Your task to perform on an android device: allow notifications from all sites in the chrome app Image 0: 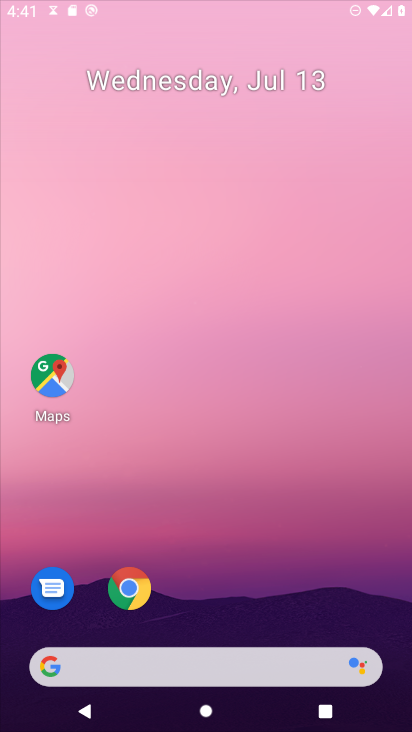
Step 0: click (182, 202)
Your task to perform on an android device: allow notifications from all sites in the chrome app Image 1: 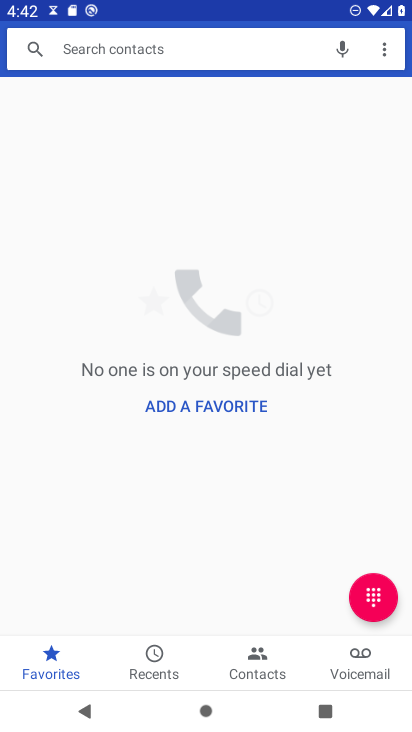
Step 1: press back button
Your task to perform on an android device: allow notifications from all sites in the chrome app Image 2: 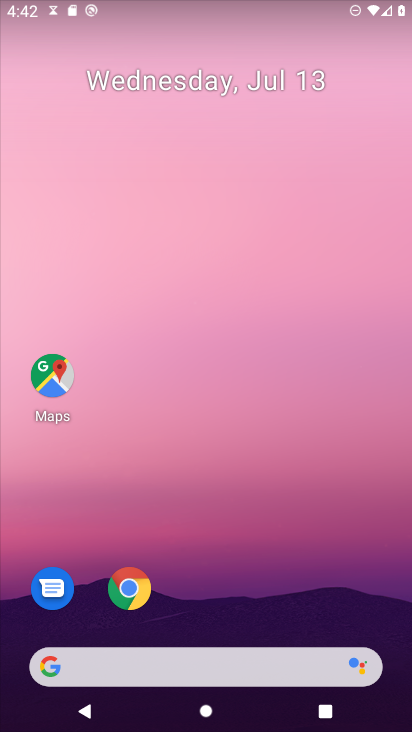
Step 2: drag from (305, 572) to (32, 102)
Your task to perform on an android device: allow notifications from all sites in the chrome app Image 3: 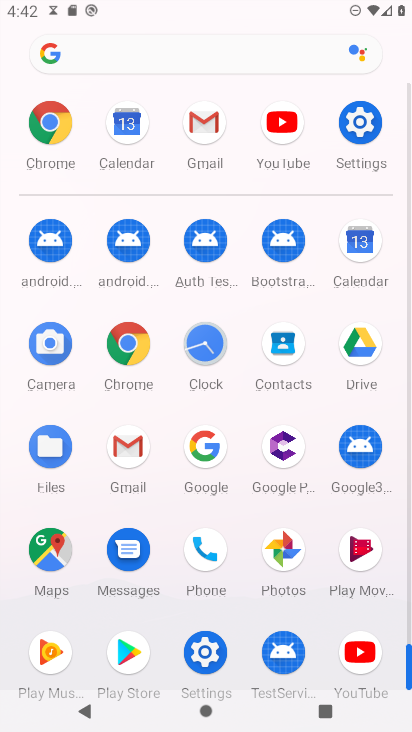
Step 3: click (119, 347)
Your task to perform on an android device: allow notifications from all sites in the chrome app Image 4: 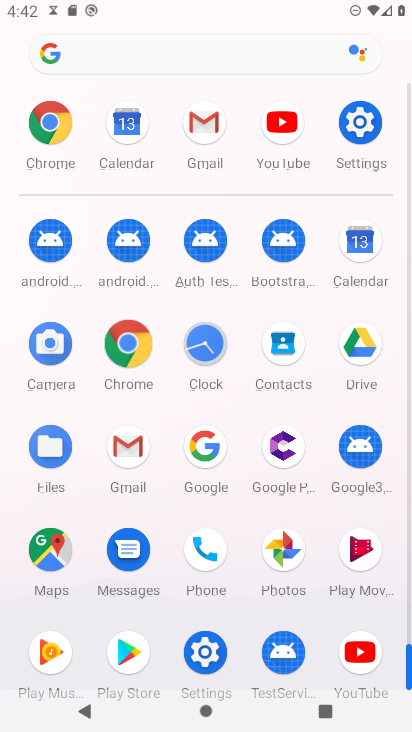
Step 4: click (123, 343)
Your task to perform on an android device: allow notifications from all sites in the chrome app Image 5: 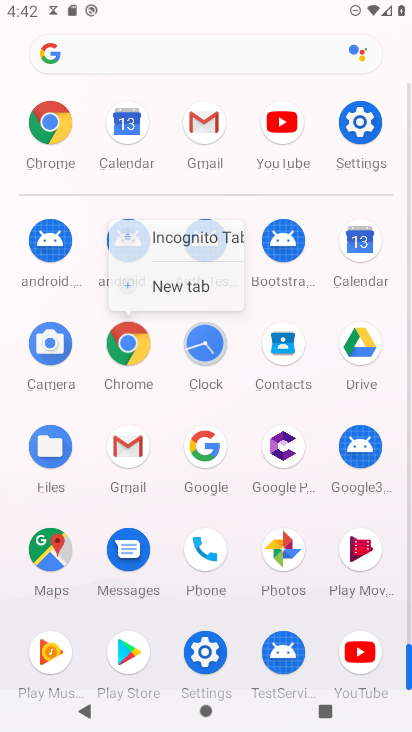
Step 5: click (124, 342)
Your task to perform on an android device: allow notifications from all sites in the chrome app Image 6: 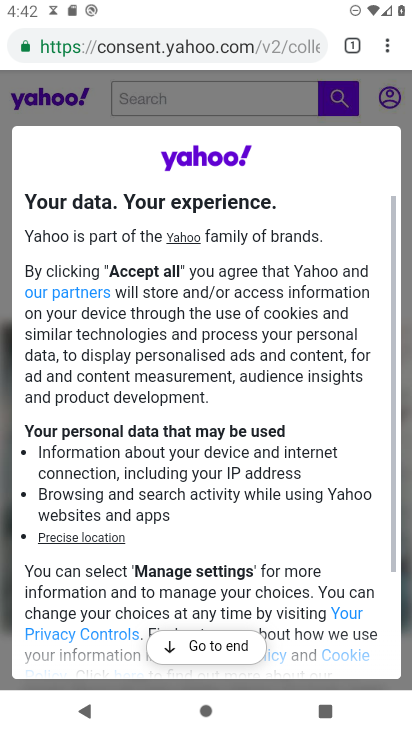
Step 6: click (384, 40)
Your task to perform on an android device: allow notifications from all sites in the chrome app Image 7: 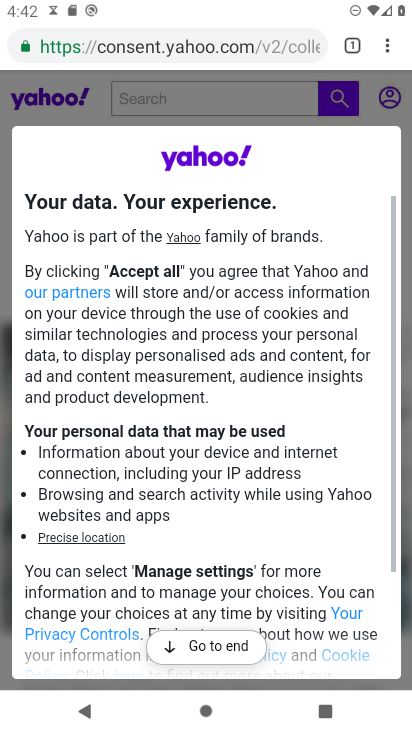
Step 7: drag from (383, 38) to (226, 554)
Your task to perform on an android device: allow notifications from all sites in the chrome app Image 8: 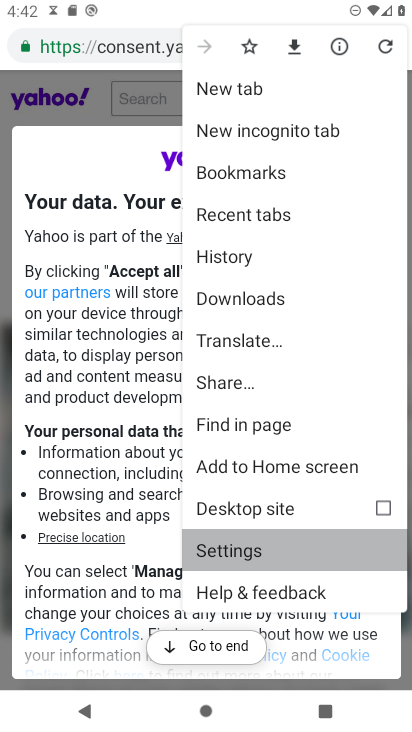
Step 8: click (231, 551)
Your task to perform on an android device: allow notifications from all sites in the chrome app Image 9: 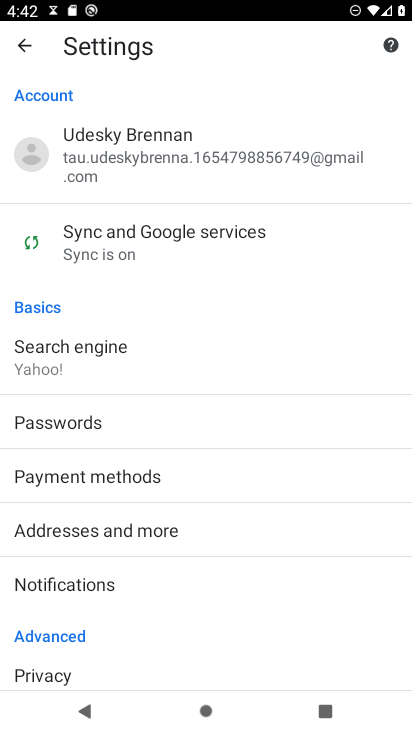
Step 9: drag from (81, 592) to (61, 272)
Your task to perform on an android device: allow notifications from all sites in the chrome app Image 10: 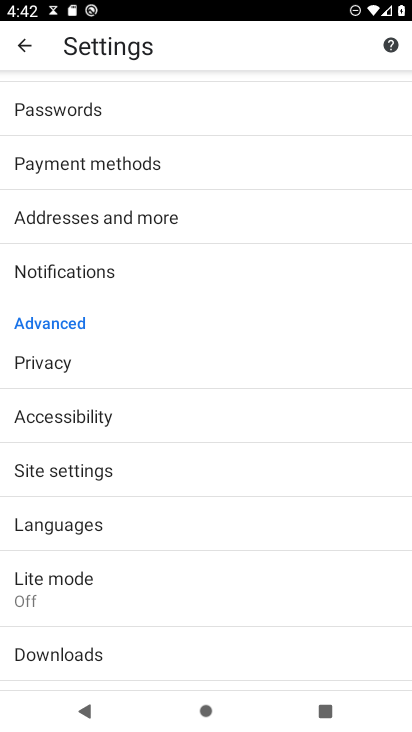
Step 10: click (63, 466)
Your task to perform on an android device: allow notifications from all sites in the chrome app Image 11: 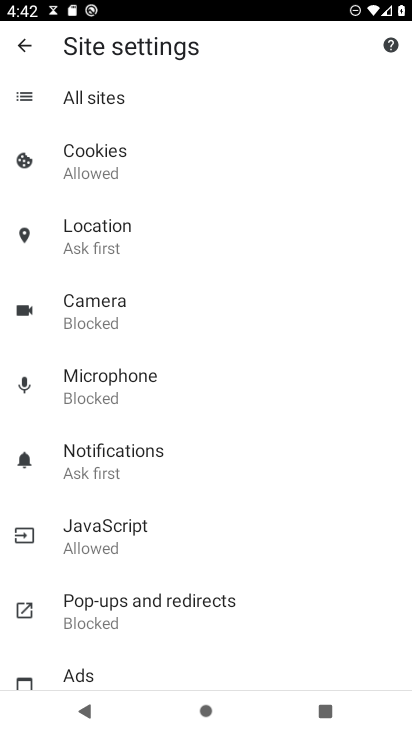
Step 11: click (77, 101)
Your task to perform on an android device: allow notifications from all sites in the chrome app Image 12: 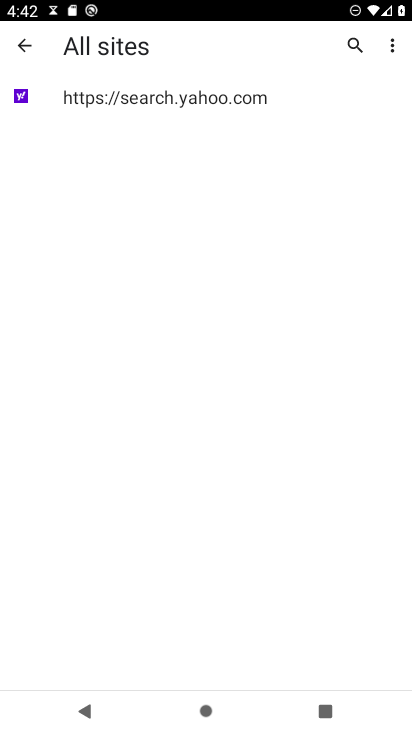
Step 12: click (230, 97)
Your task to perform on an android device: allow notifications from all sites in the chrome app Image 13: 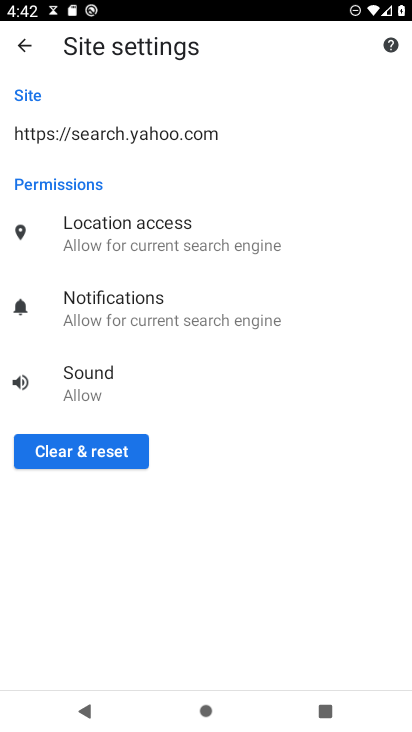
Step 13: click (90, 290)
Your task to perform on an android device: allow notifications from all sites in the chrome app Image 14: 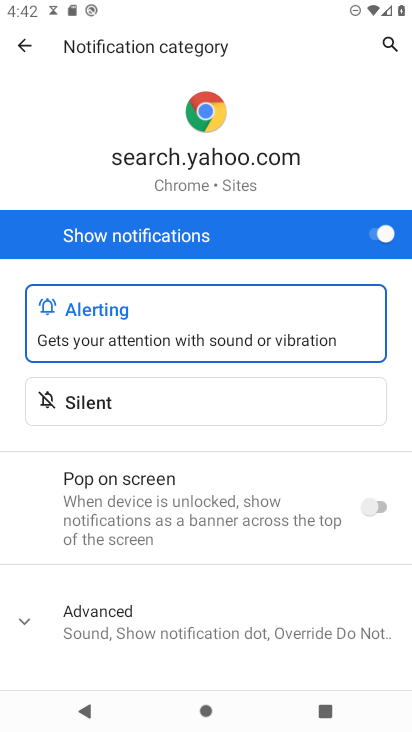
Step 14: task complete